Your task to perform on an android device: turn on notifications settings in the gmail app Image 0: 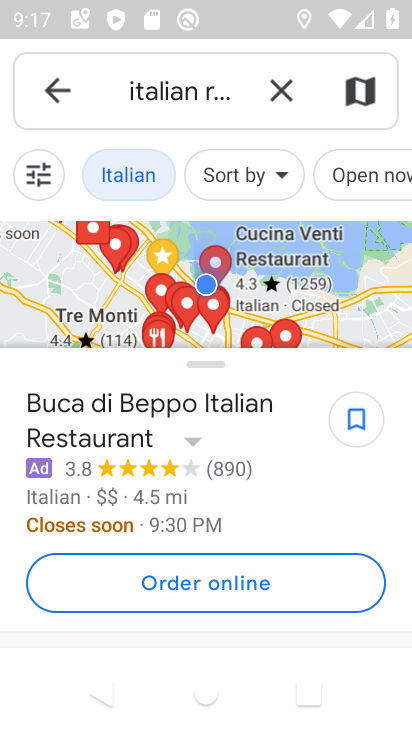
Step 0: press home button
Your task to perform on an android device: turn on notifications settings in the gmail app Image 1: 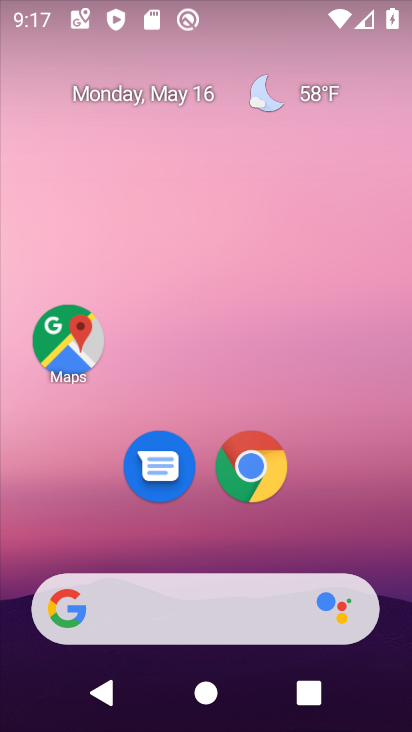
Step 1: drag from (296, 521) to (347, 92)
Your task to perform on an android device: turn on notifications settings in the gmail app Image 2: 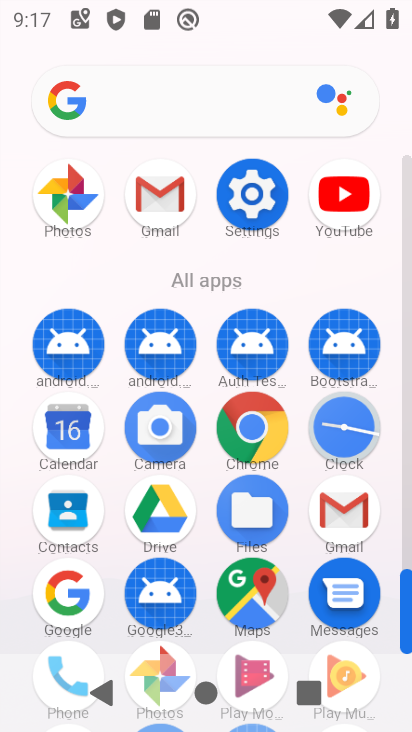
Step 2: click (156, 216)
Your task to perform on an android device: turn on notifications settings in the gmail app Image 3: 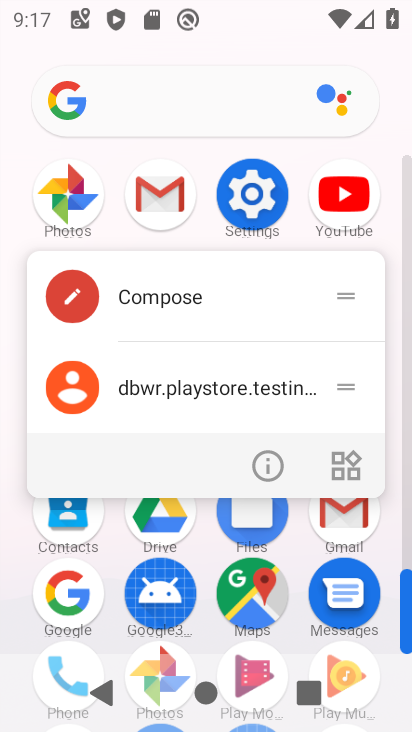
Step 3: click (265, 452)
Your task to perform on an android device: turn on notifications settings in the gmail app Image 4: 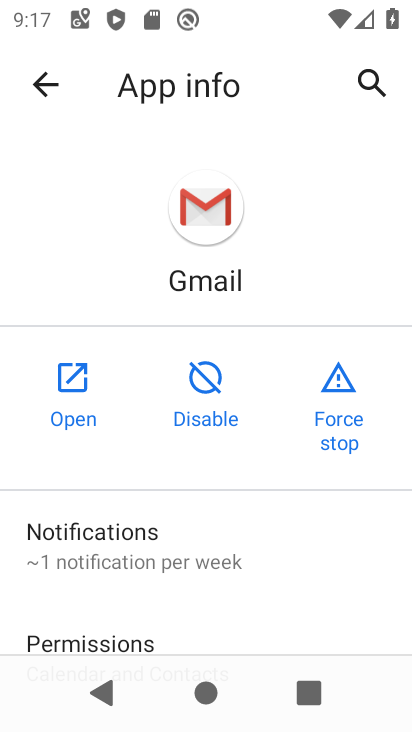
Step 4: click (181, 555)
Your task to perform on an android device: turn on notifications settings in the gmail app Image 5: 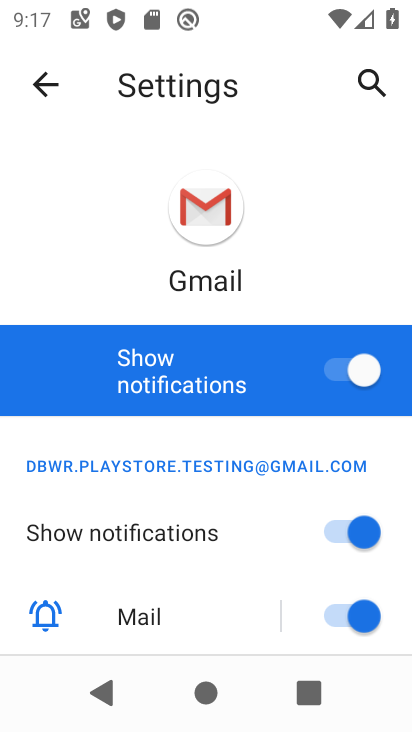
Step 5: task complete